Your task to perform on an android device: Go to ESPN.com Image 0: 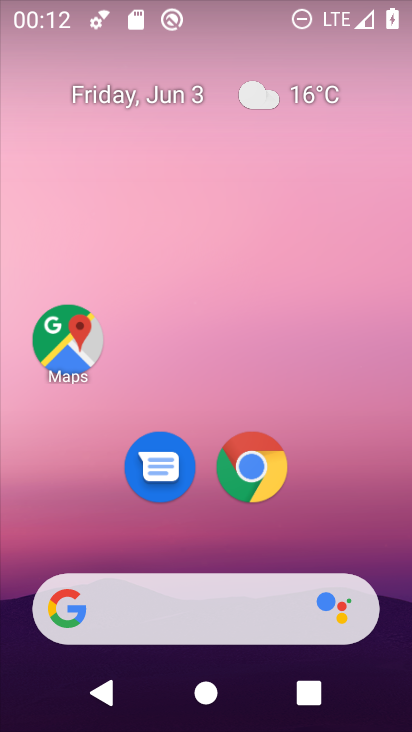
Step 0: click (256, 468)
Your task to perform on an android device: Go to ESPN.com Image 1: 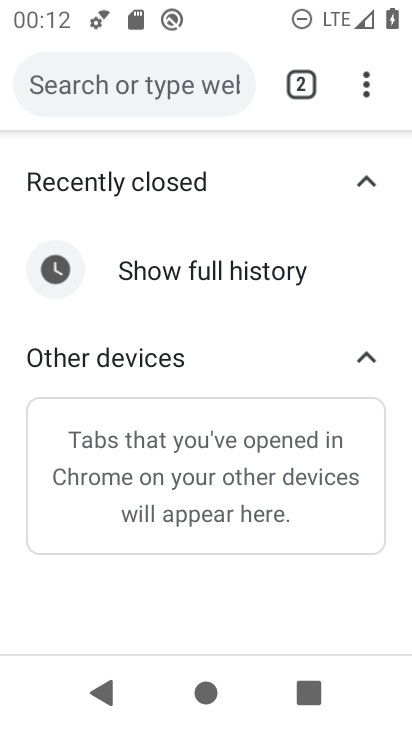
Step 1: click (109, 80)
Your task to perform on an android device: Go to ESPN.com Image 2: 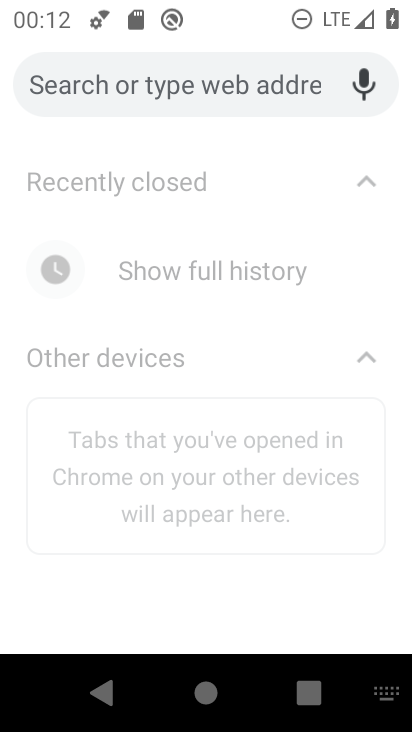
Step 2: type "espn.com"
Your task to perform on an android device: Go to ESPN.com Image 3: 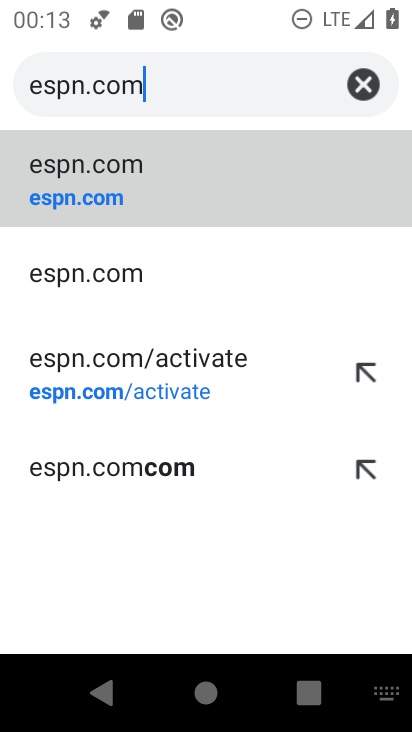
Step 3: click (73, 156)
Your task to perform on an android device: Go to ESPN.com Image 4: 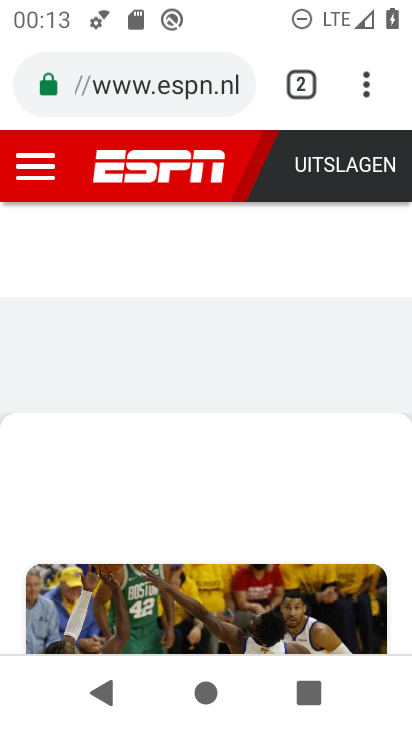
Step 4: task complete